Your task to perform on an android device: Open the map Image 0: 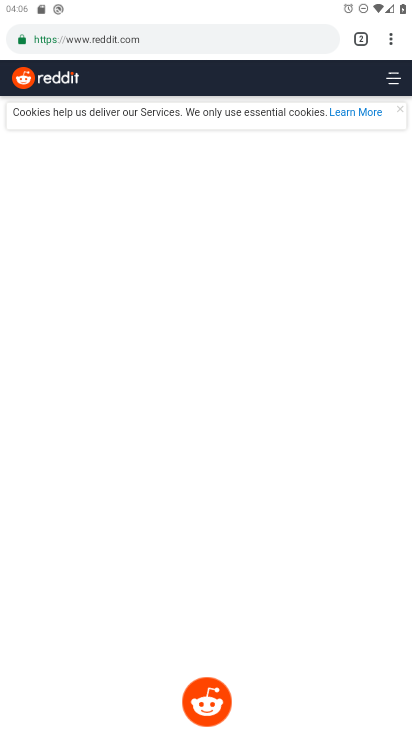
Step 0: press home button
Your task to perform on an android device: Open the map Image 1: 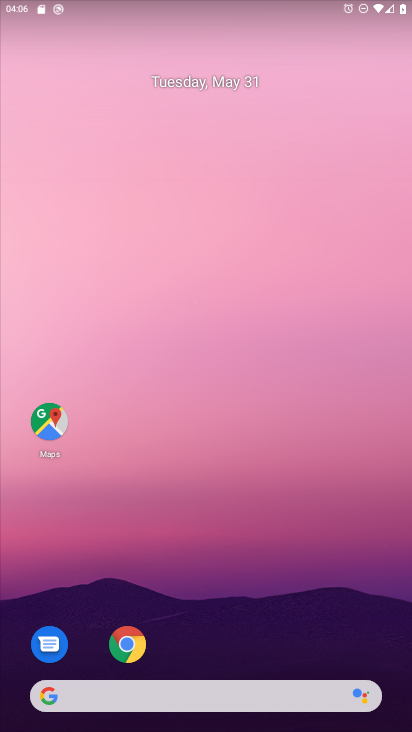
Step 1: click (49, 424)
Your task to perform on an android device: Open the map Image 2: 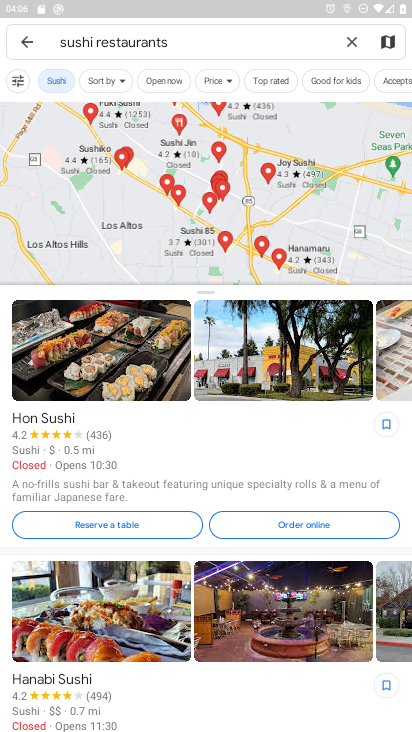
Step 2: task complete